Your task to perform on an android device: Open Google Chrome Image 0: 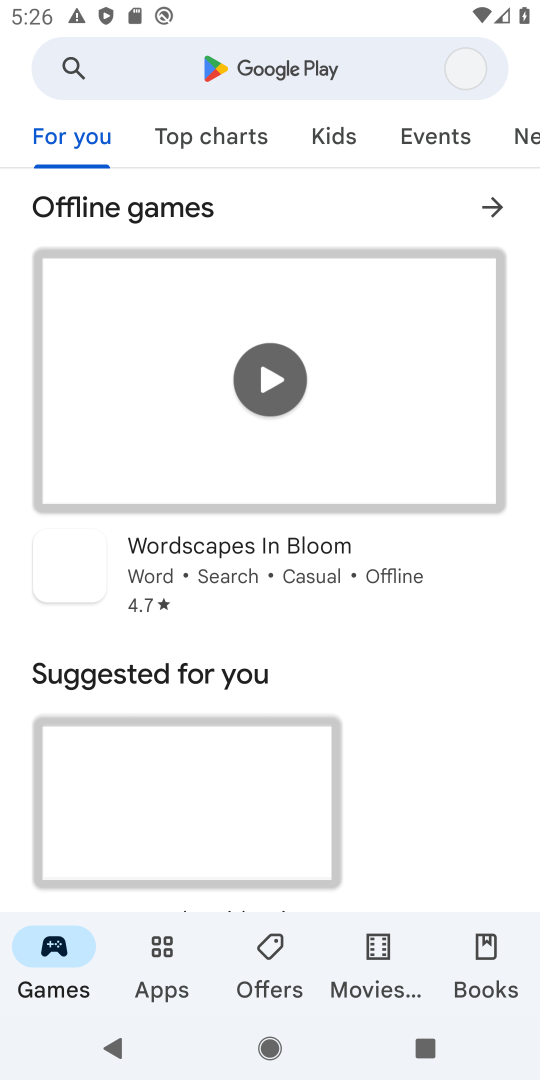
Step 0: press home button
Your task to perform on an android device: Open Google Chrome Image 1: 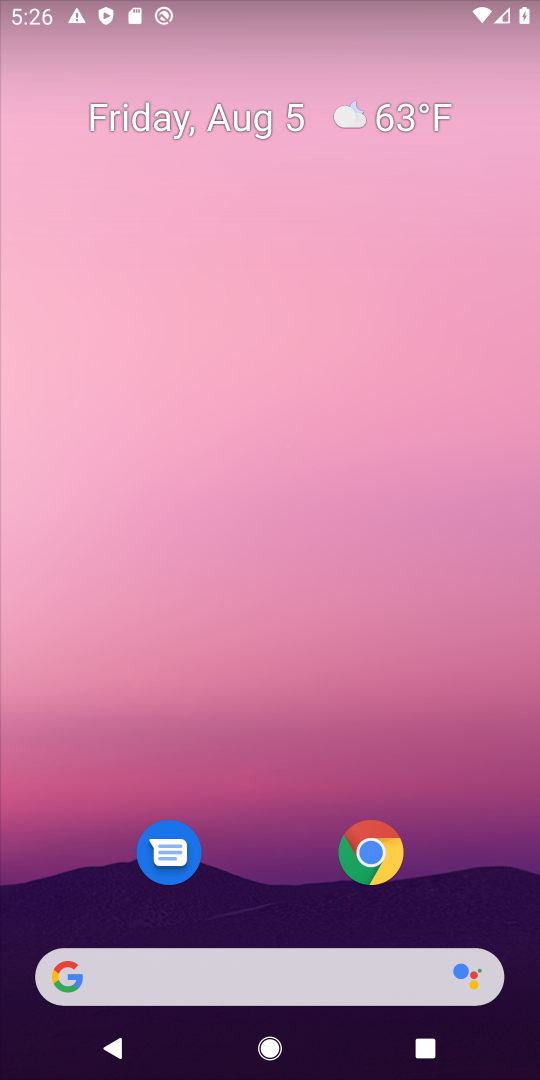
Step 1: click (375, 861)
Your task to perform on an android device: Open Google Chrome Image 2: 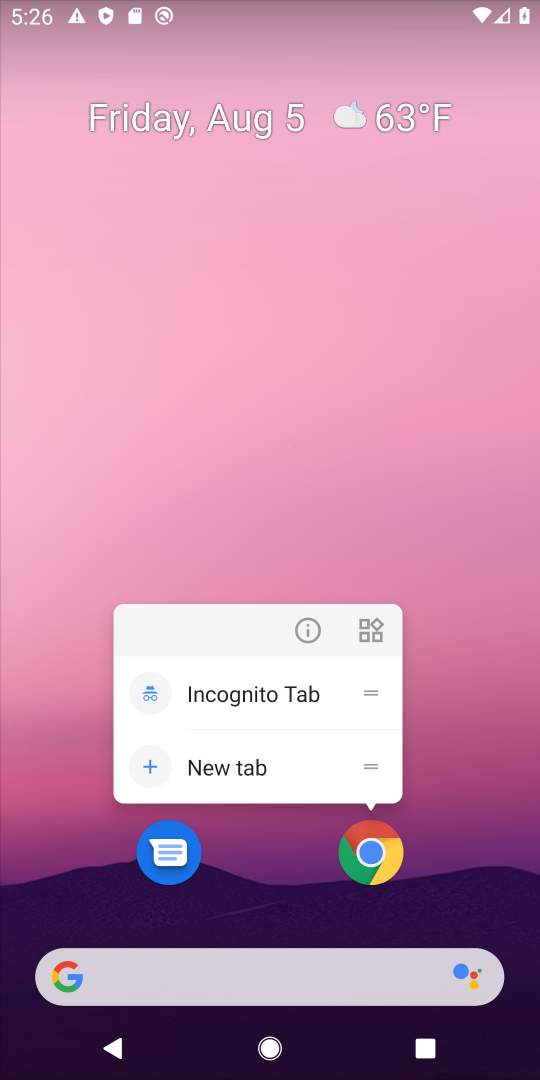
Step 2: click (375, 861)
Your task to perform on an android device: Open Google Chrome Image 3: 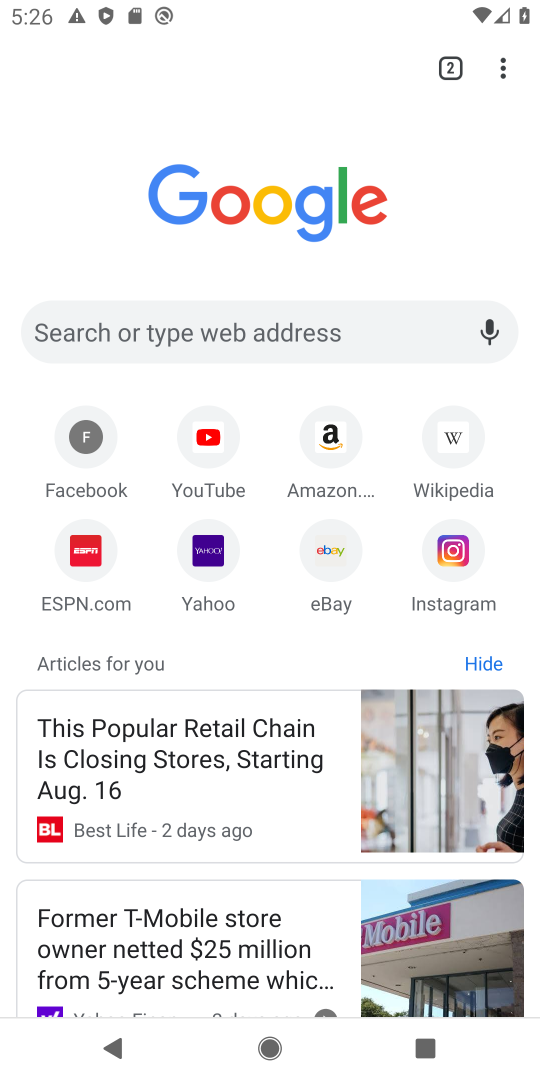
Step 3: click (509, 69)
Your task to perform on an android device: Open Google Chrome Image 4: 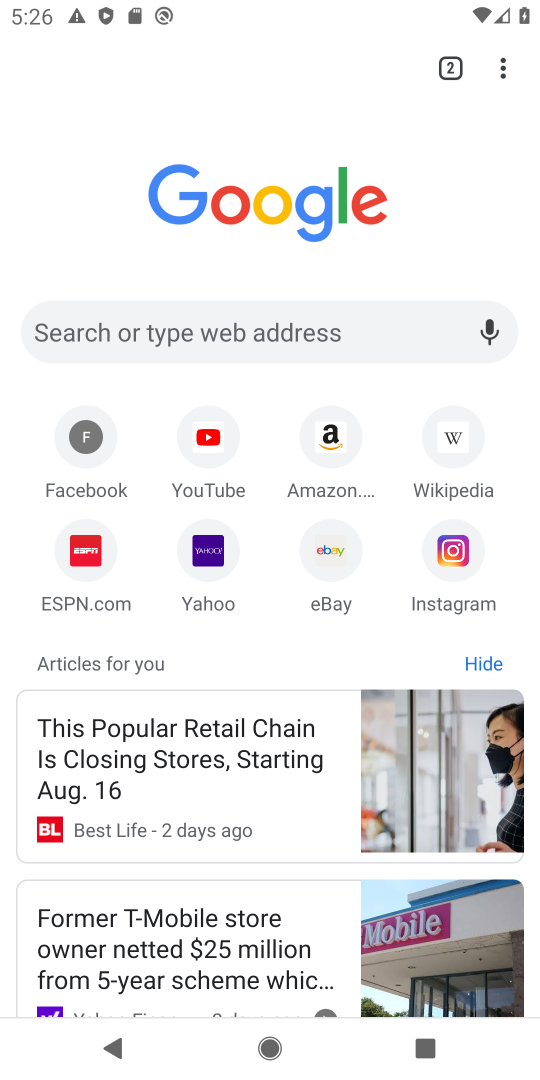
Step 4: click (501, 79)
Your task to perform on an android device: Open Google Chrome Image 5: 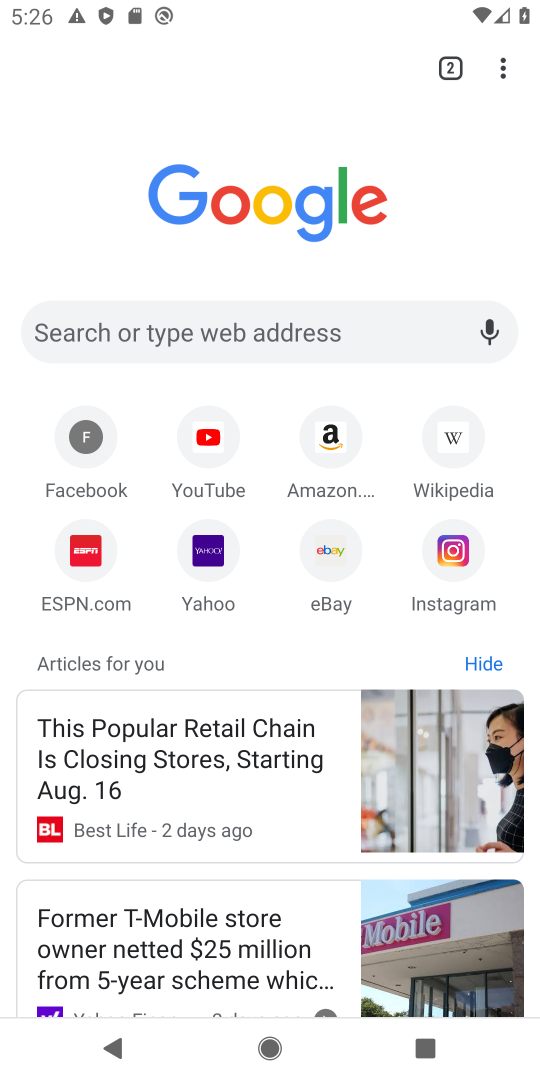
Step 5: click (502, 53)
Your task to perform on an android device: Open Google Chrome Image 6: 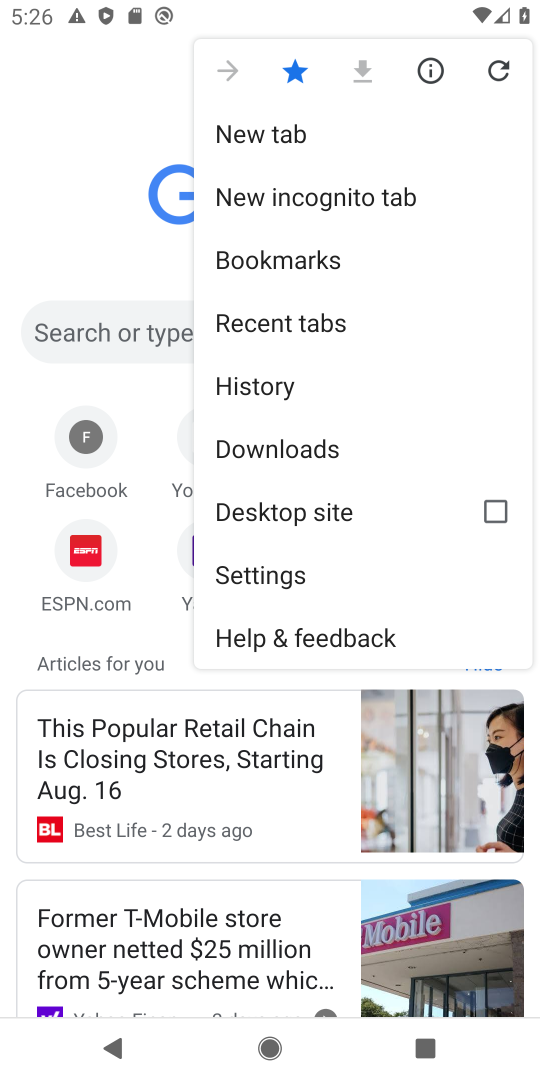
Step 6: click (66, 275)
Your task to perform on an android device: Open Google Chrome Image 7: 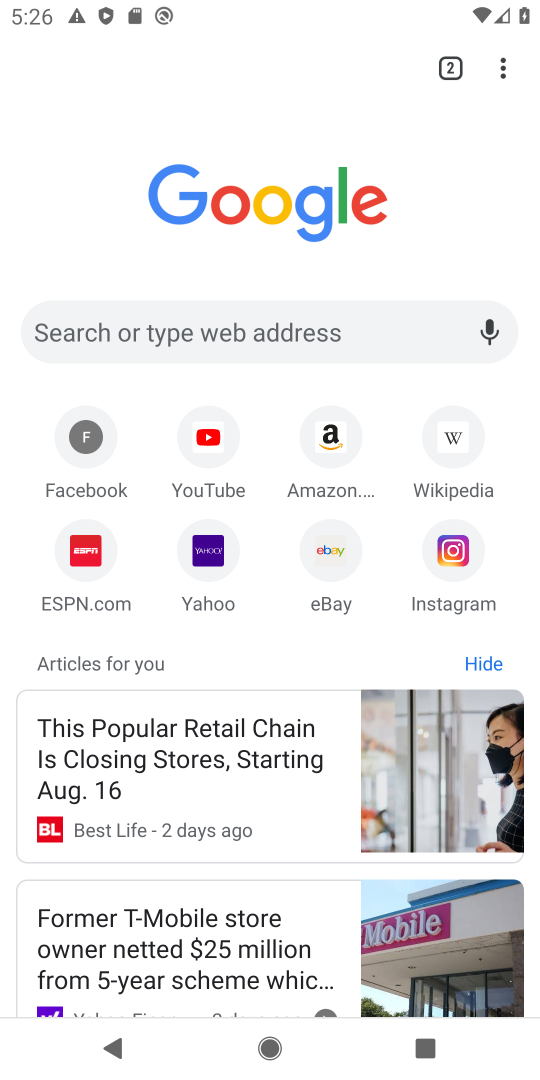
Step 7: task complete